Your task to perform on an android device: turn on improve location accuracy Image 0: 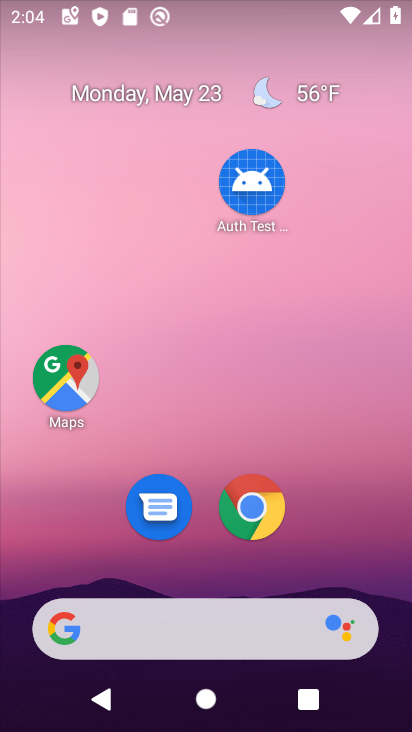
Step 0: drag from (240, 677) to (168, 11)
Your task to perform on an android device: turn on improve location accuracy Image 1: 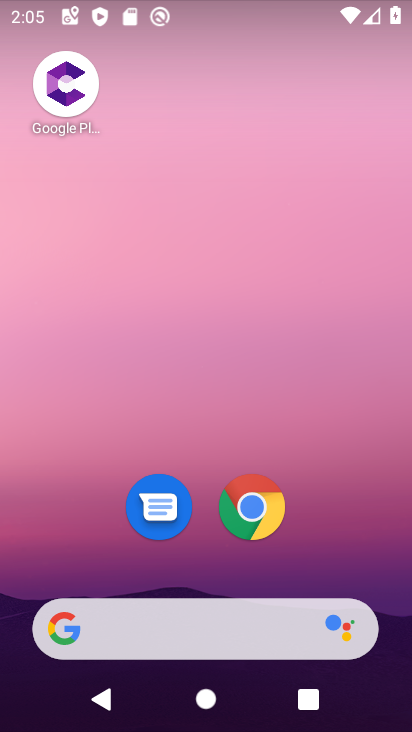
Step 1: drag from (224, 595) to (119, 9)
Your task to perform on an android device: turn on improve location accuracy Image 2: 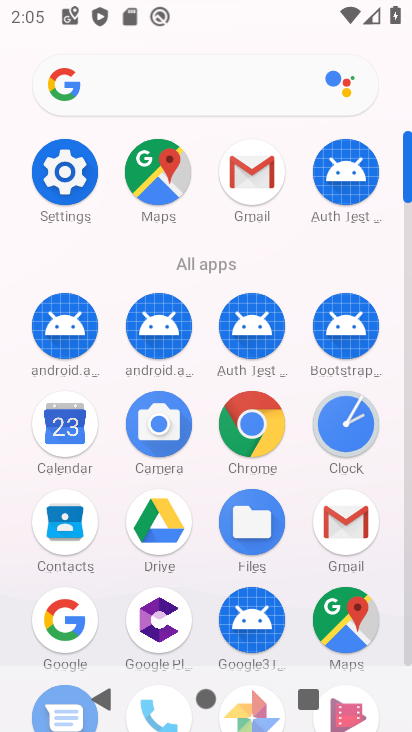
Step 2: drag from (237, 670) to (197, 334)
Your task to perform on an android device: turn on improve location accuracy Image 3: 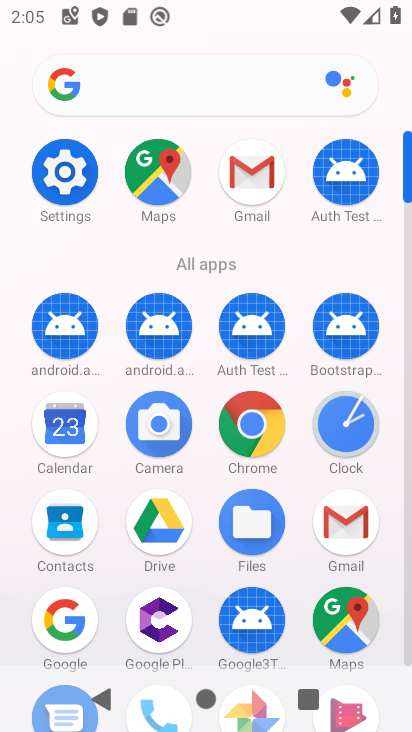
Step 3: click (54, 183)
Your task to perform on an android device: turn on improve location accuracy Image 4: 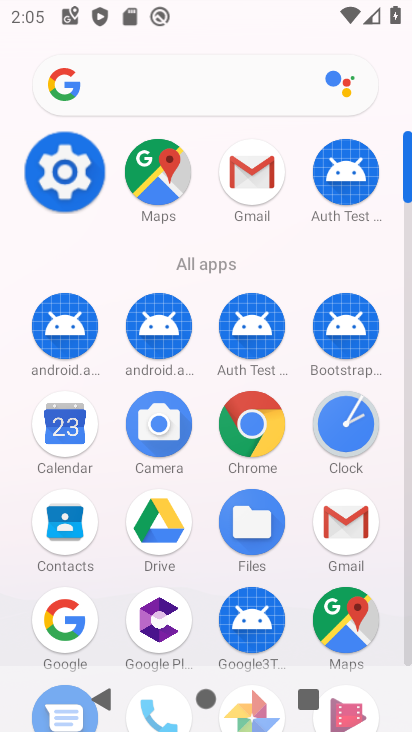
Step 4: click (57, 180)
Your task to perform on an android device: turn on improve location accuracy Image 5: 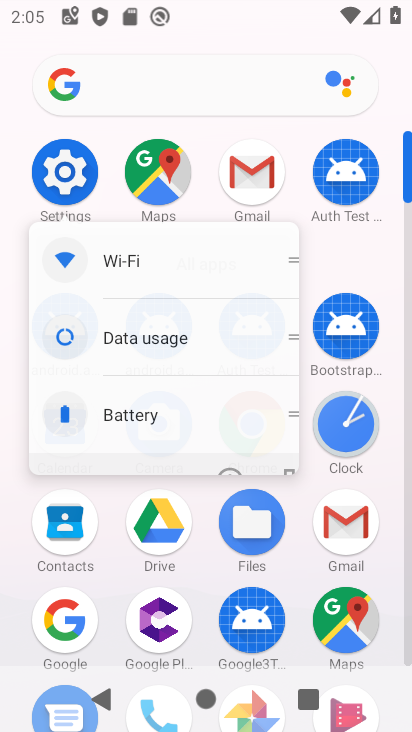
Step 5: click (57, 180)
Your task to perform on an android device: turn on improve location accuracy Image 6: 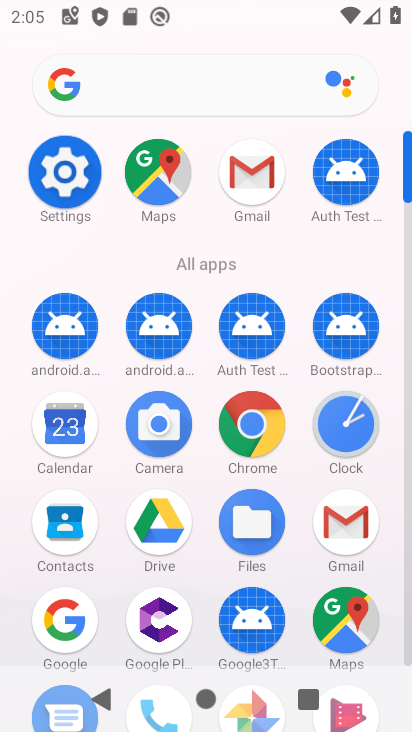
Step 6: click (57, 179)
Your task to perform on an android device: turn on improve location accuracy Image 7: 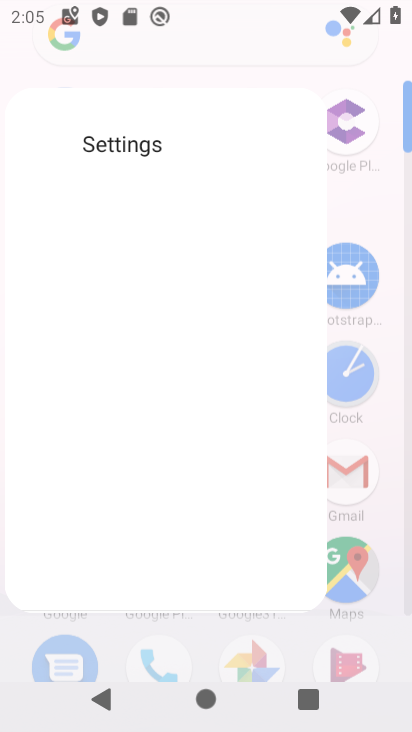
Step 7: click (57, 179)
Your task to perform on an android device: turn on improve location accuracy Image 8: 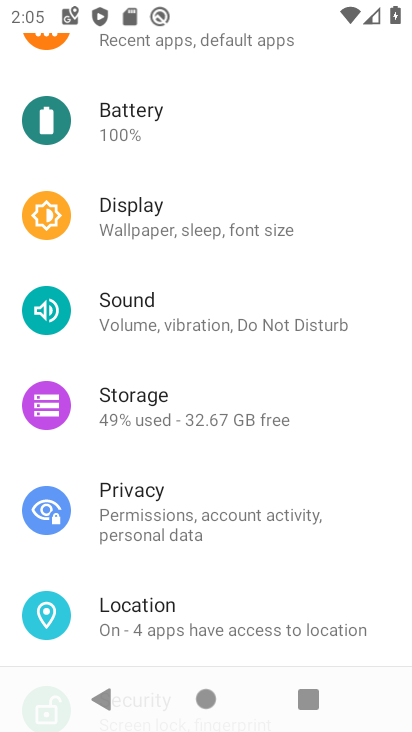
Step 8: click (166, 623)
Your task to perform on an android device: turn on improve location accuracy Image 9: 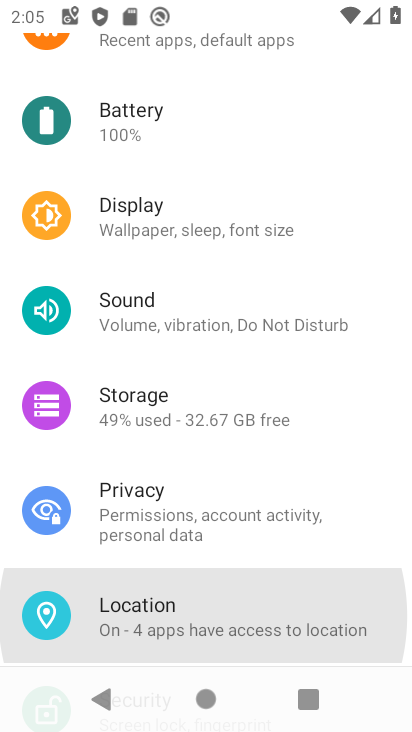
Step 9: click (165, 622)
Your task to perform on an android device: turn on improve location accuracy Image 10: 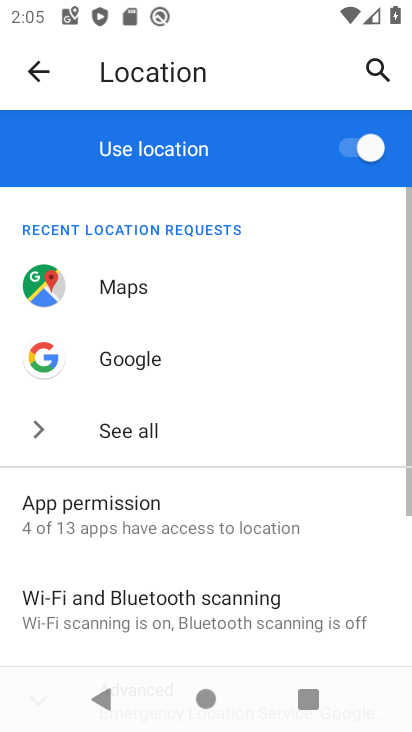
Step 10: drag from (162, 517) to (154, 222)
Your task to perform on an android device: turn on improve location accuracy Image 11: 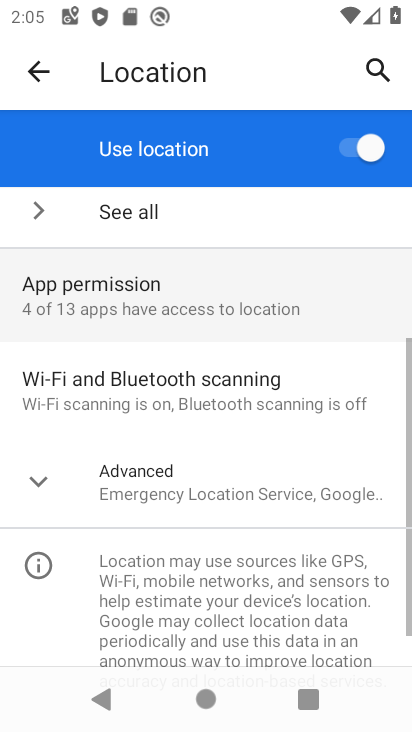
Step 11: drag from (191, 467) to (167, 128)
Your task to perform on an android device: turn on improve location accuracy Image 12: 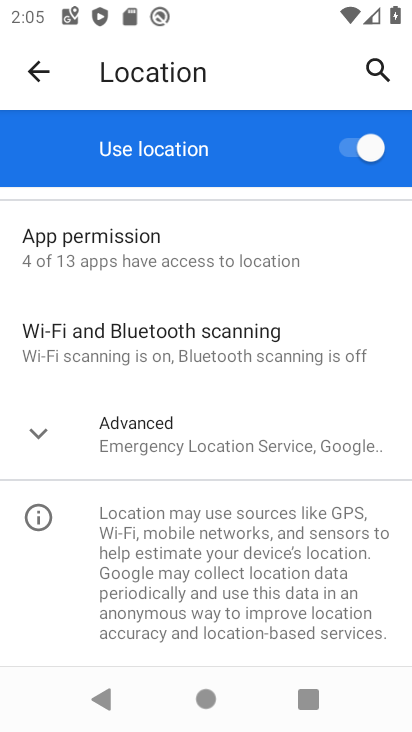
Step 12: click (181, 444)
Your task to perform on an android device: turn on improve location accuracy Image 13: 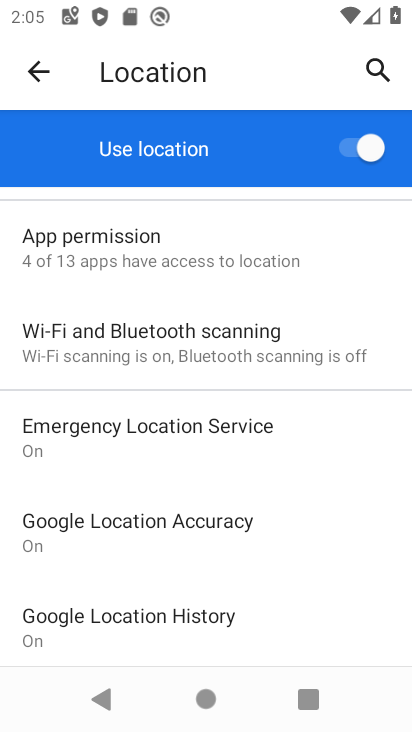
Step 13: drag from (277, 366) to (257, 91)
Your task to perform on an android device: turn on improve location accuracy Image 14: 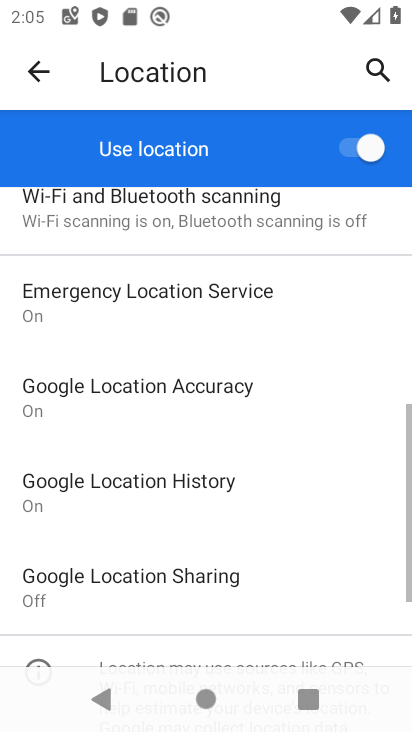
Step 14: drag from (258, 426) to (249, 179)
Your task to perform on an android device: turn on improve location accuracy Image 15: 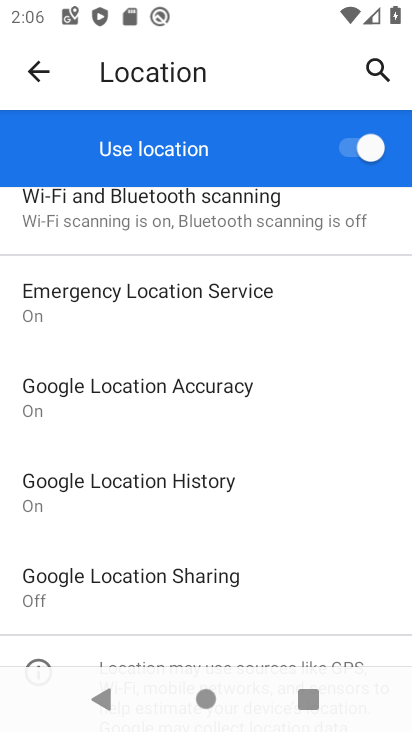
Step 15: click (136, 384)
Your task to perform on an android device: turn on improve location accuracy Image 16: 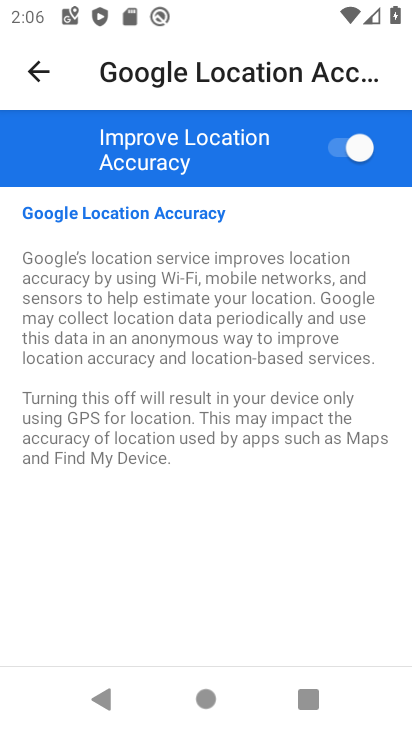
Step 16: task complete